Your task to perform on an android device: set the stopwatch Image 0: 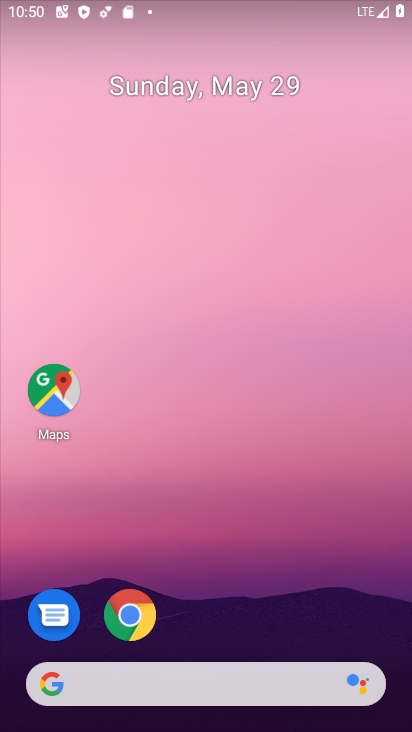
Step 0: drag from (380, 639) to (352, 323)
Your task to perform on an android device: set the stopwatch Image 1: 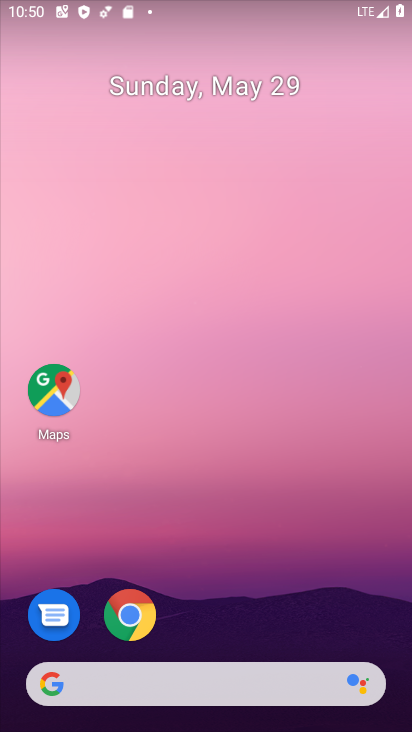
Step 1: drag from (362, 603) to (365, 226)
Your task to perform on an android device: set the stopwatch Image 2: 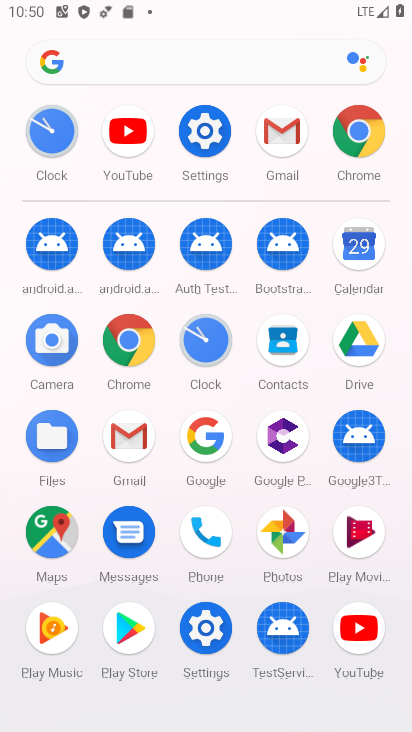
Step 2: click (188, 360)
Your task to perform on an android device: set the stopwatch Image 3: 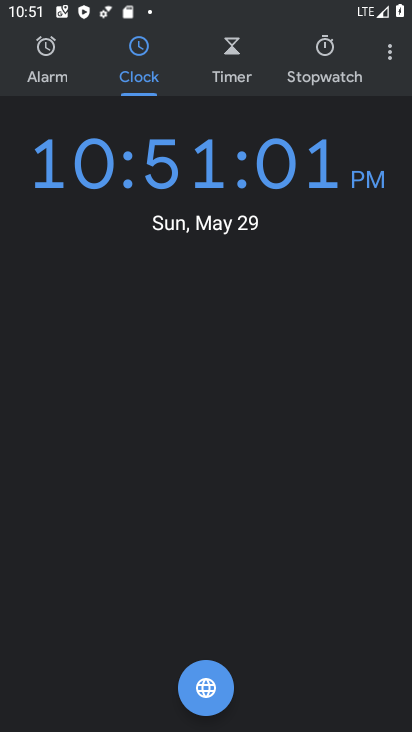
Step 3: click (332, 68)
Your task to perform on an android device: set the stopwatch Image 4: 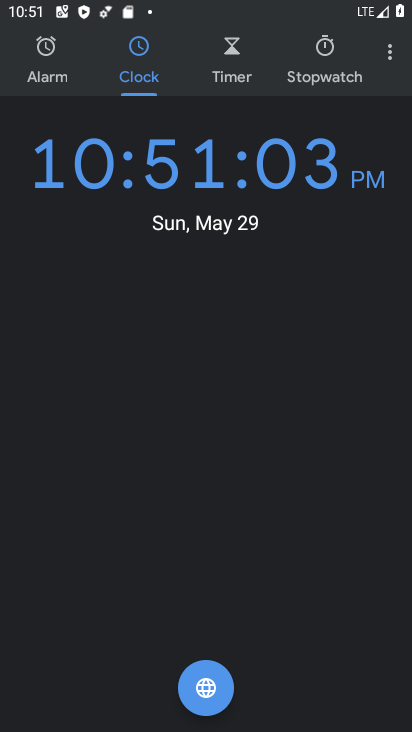
Step 4: click (334, 53)
Your task to perform on an android device: set the stopwatch Image 5: 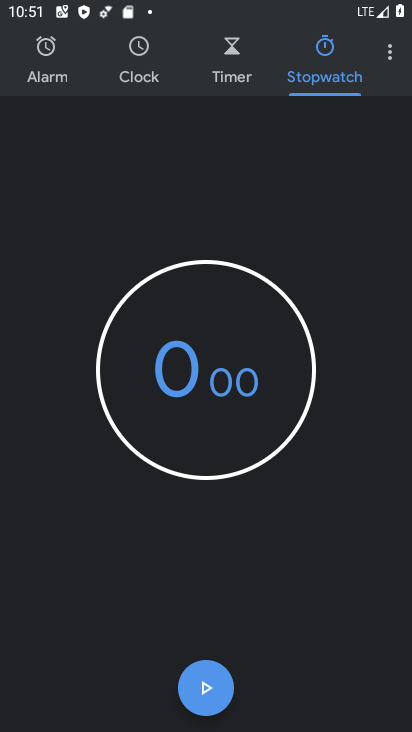
Step 5: click (216, 695)
Your task to perform on an android device: set the stopwatch Image 6: 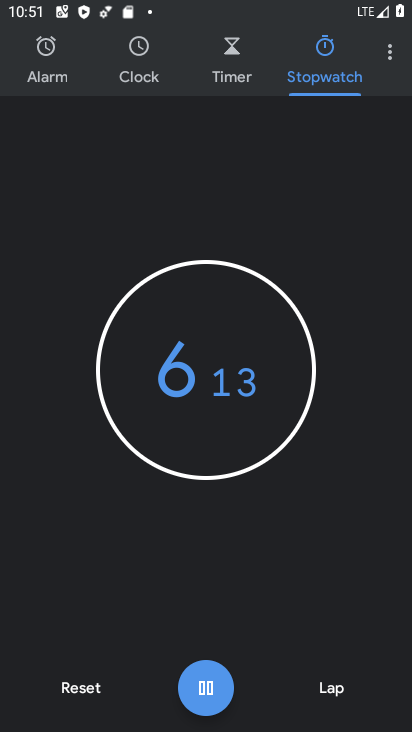
Step 6: task complete